Your task to perform on an android device: turn pop-ups on in chrome Image 0: 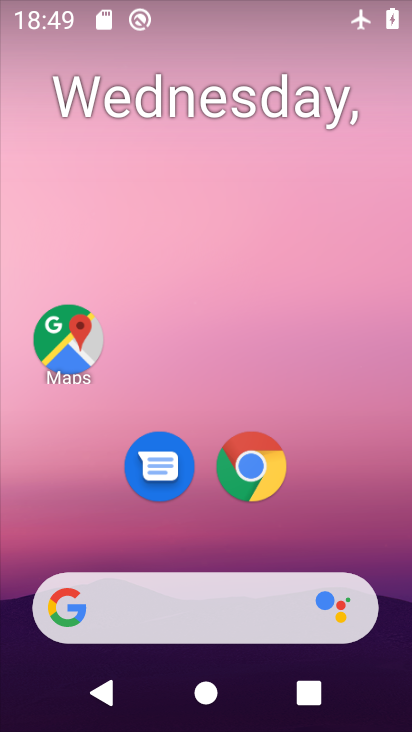
Step 0: click (245, 449)
Your task to perform on an android device: turn pop-ups on in chrome Image 1: 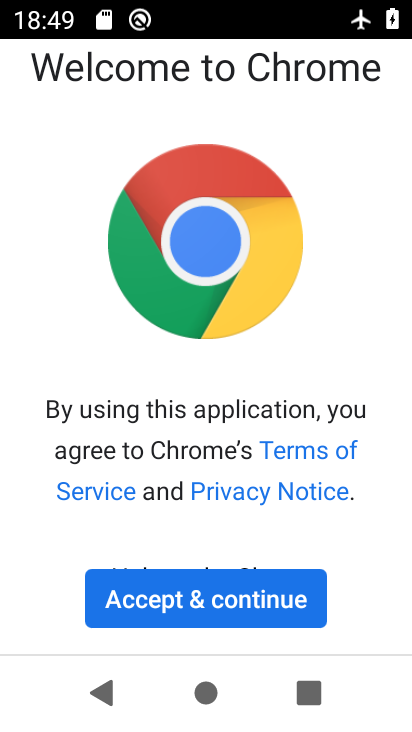
Step 1: click (207, 587)
Your task to perform on an android device: turn pop-ups on in chrome Image 2: 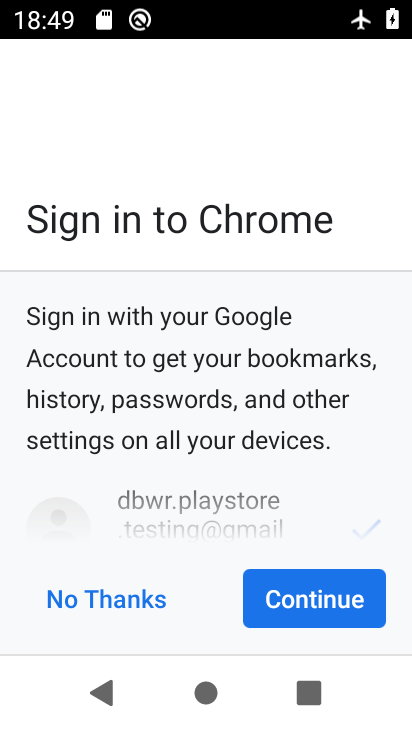
Step 2: click (309, 598)
Your task to perform on an android device: turn pop-ups on in chrome Image 3: 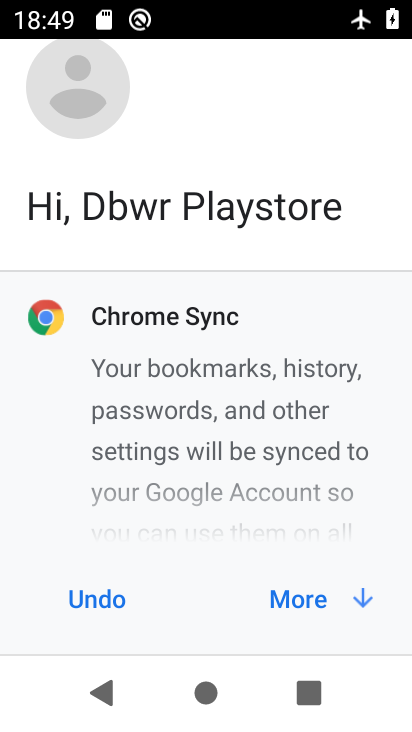
Step 3: click (359, 602)
Your task to perform on an android device: turn pop-ups on in chrome Image 4: 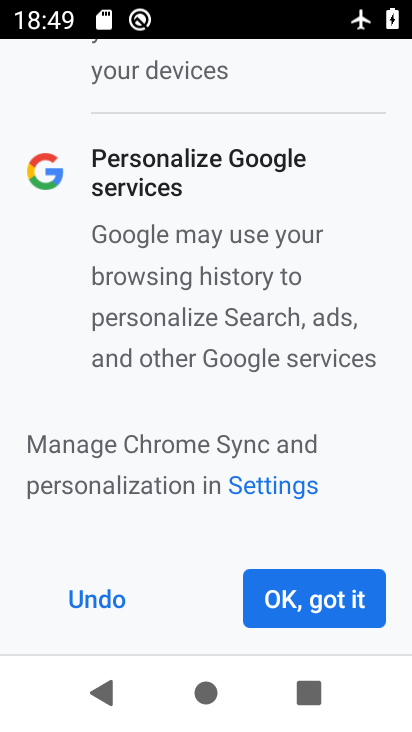
Step 4: click (315, 594)
Your task to perform on an android device: turn pop-ups on in chrome Image 5: 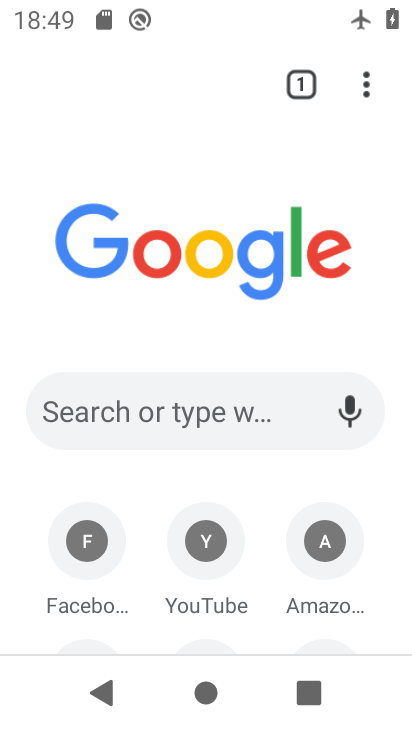
Step 5: click (366, 85)
Your task to perform on an android device: turn pop-ups on in chrome Image 6: 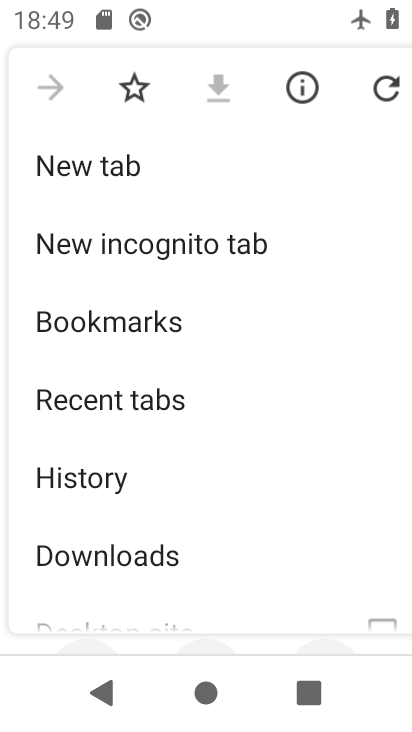
Step 6: drag from (218, 504) to (139, 216)
Your task to perform on an android device: turn pop-ups on in chrome Image 7: 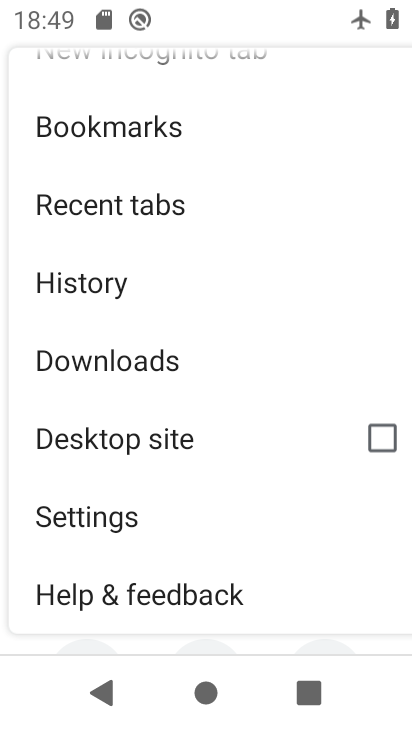
Step 7: click (108, 523)
Your task to perform on an android device: turn pop-ups on in chrome Image 8: 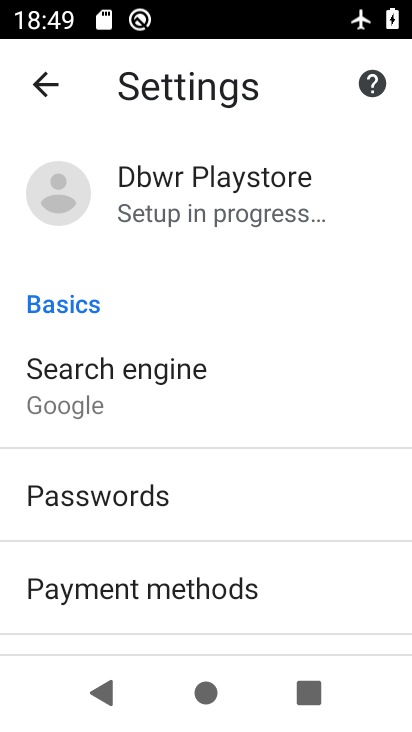
Step 8: drag from (228, 516) to (159, 208)
Your task to perform on an android device: turn pop-ups on in chrome Image 9: 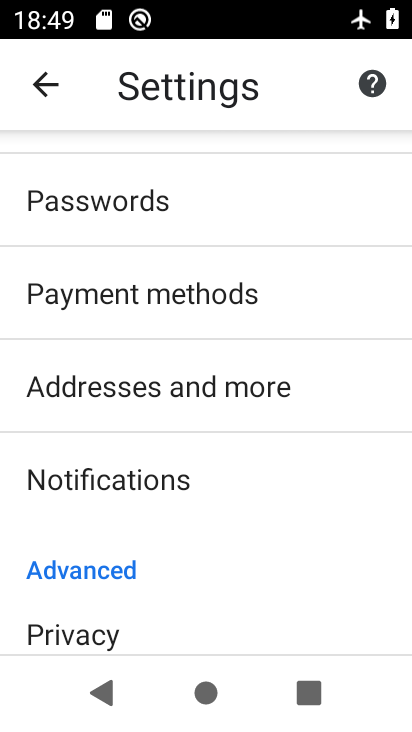
Step 9: drag from (239, 512) to (196, 179)
Your task to perform on an android device: turn pop-ups on in chrome Image 10: 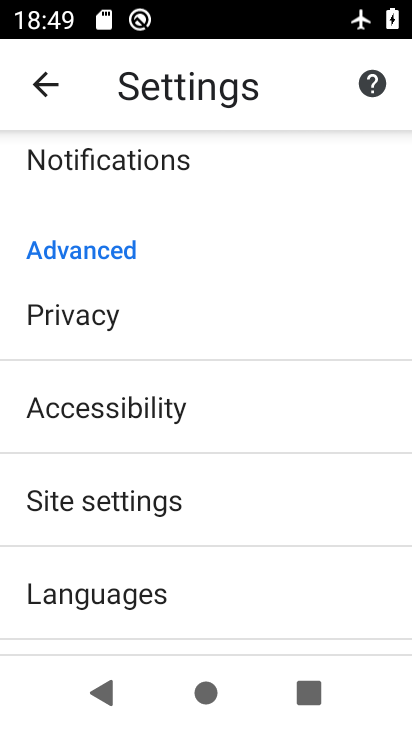
Step 10: drag from (216, 502) to (180, 230)
Your task to perform on an android device: turn pop-ups on in chrome Image 11: 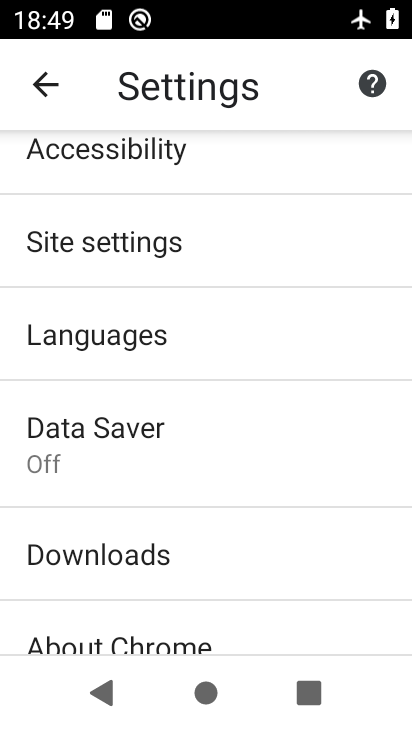
Step 11: click (113, 238)
Your task to perform on an android device: turn pop-ups on in chrome Image 12: 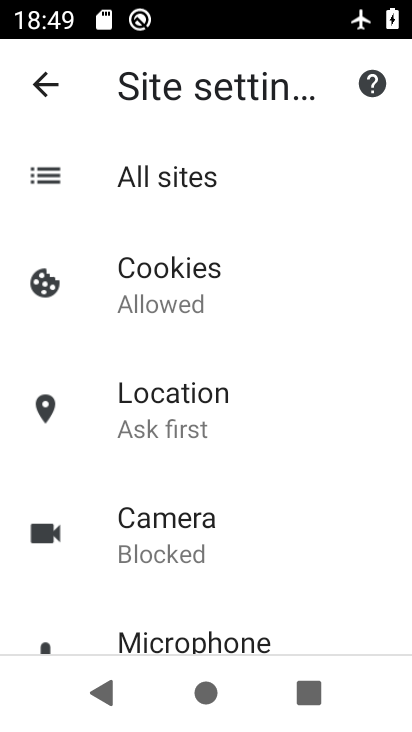
Step 12: drag from (265, 483) to (205, 203)
Your task to perform on an android device: turn pop-ups on in chrome Image 13: 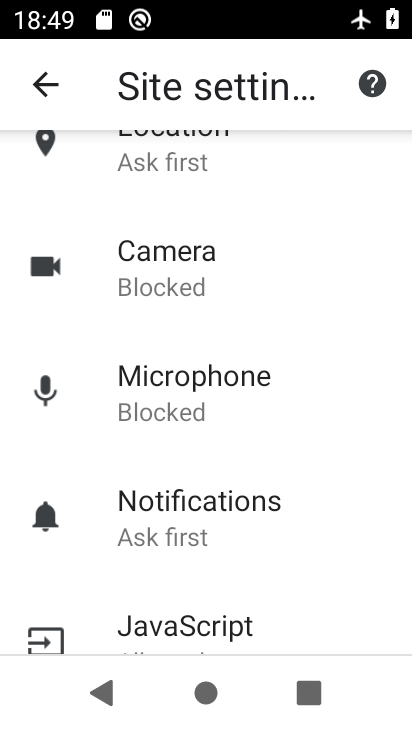
Step 13: drag from (296, 503) to (255, 265)
Your task to perform on an android device: turn pop-ups on in chrome Image 14: 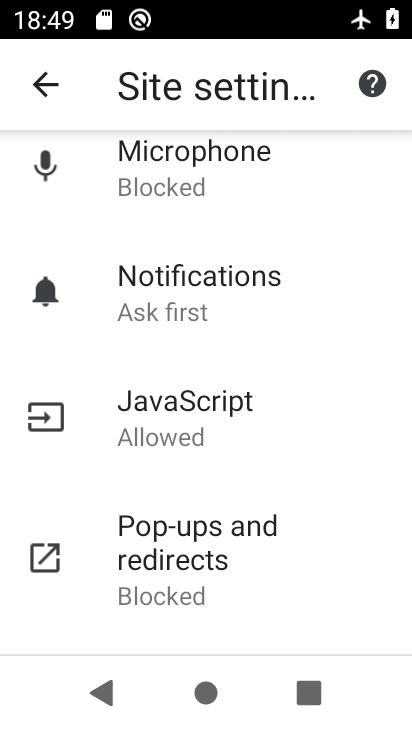
Step 14: click (186, 533)
Your task to perform on an android device: turn pop-ups on in chrome Image 15: 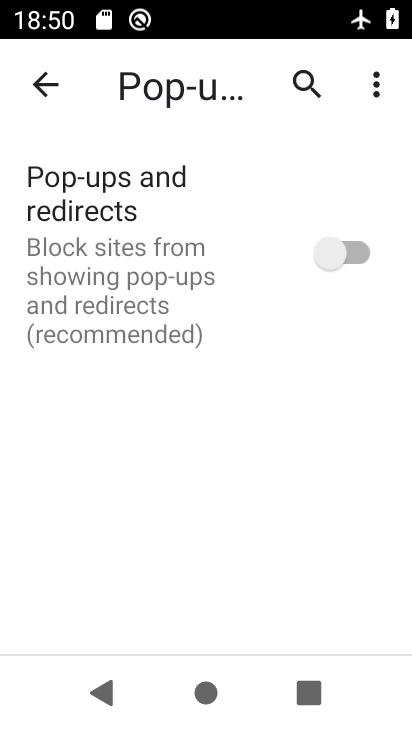
Step 15: click (336, 256)
Your task to perform on an android device: turn pop-ups on in chrome Image 16: 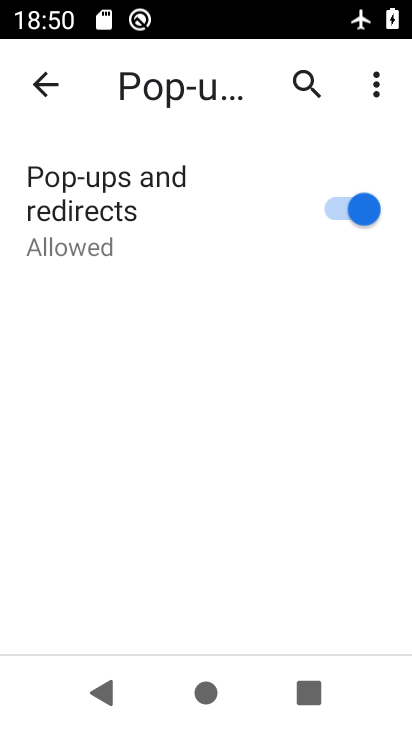
Step 16: task complete